Your task to perform on an android device: turn off smart reply in the gmail app Image 0: 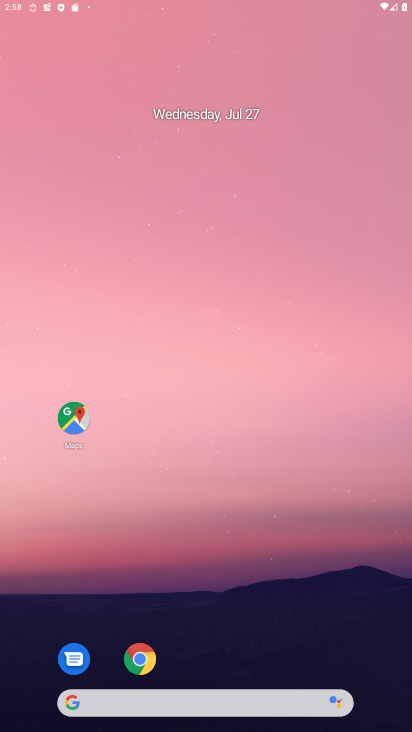
Step 0: click (141, 659)
Your task to perform on an android device: turn off smart reply in the gmail app Image 1: 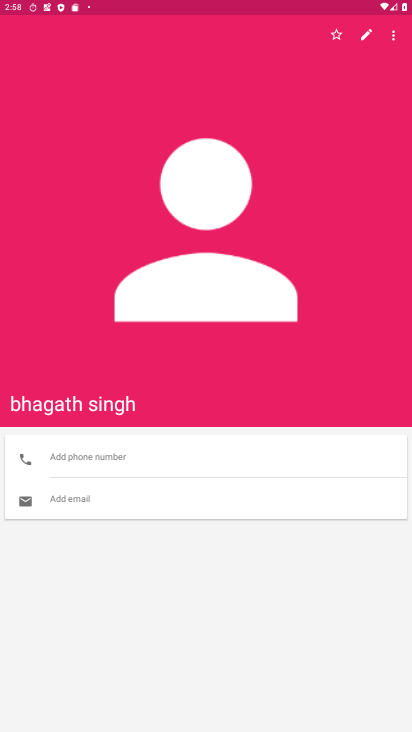
Step 1: press home button
Your task to perform on an android device: turn off smart reply in the gmail app Image 2: 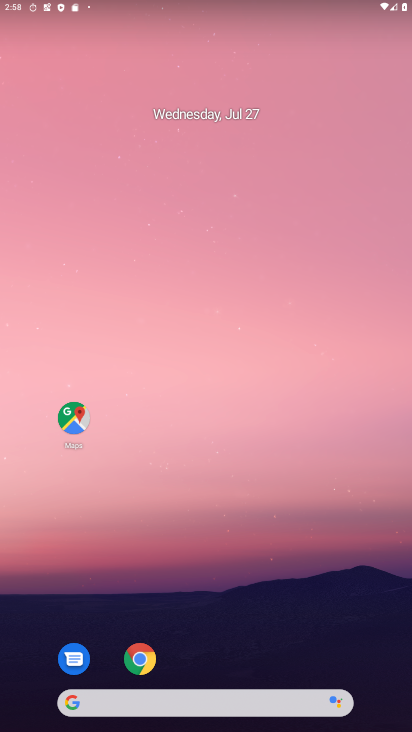
Step 2: drag from (215, 698) to (169, 61)
Your task to perform on an android device: turn off smart reply in the gmail app Image 3: 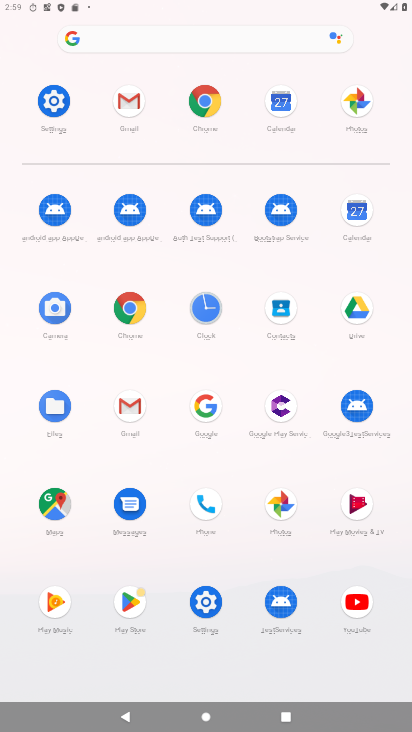
Step 3: click (126, 414)
Your task to perform on an android device: turn off smart reply in the gmail app Image 4: 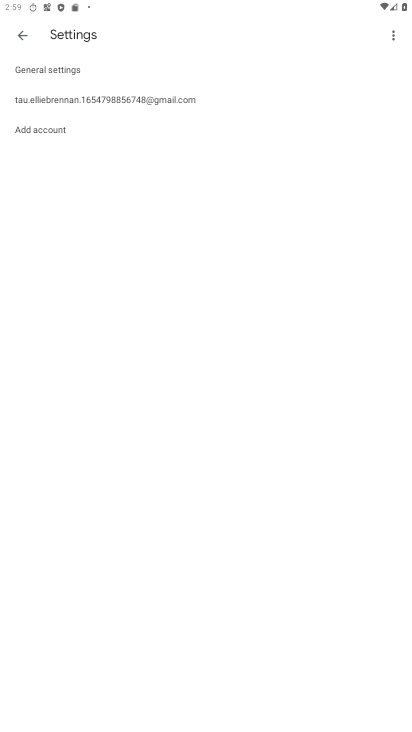
Step 4: click (77, 97)
Your task to perform on an android device: turn off smart reply in the gmail app Image 5: 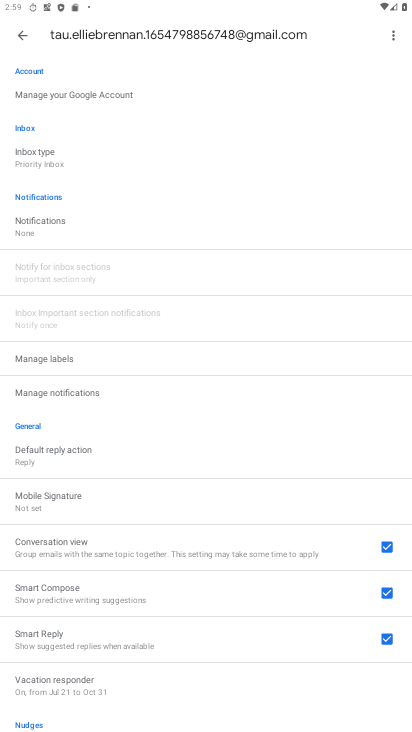
Step 5: click (384, 639)
Your task to perform on an android device: turn off smart reply in the gmail app Image 6: 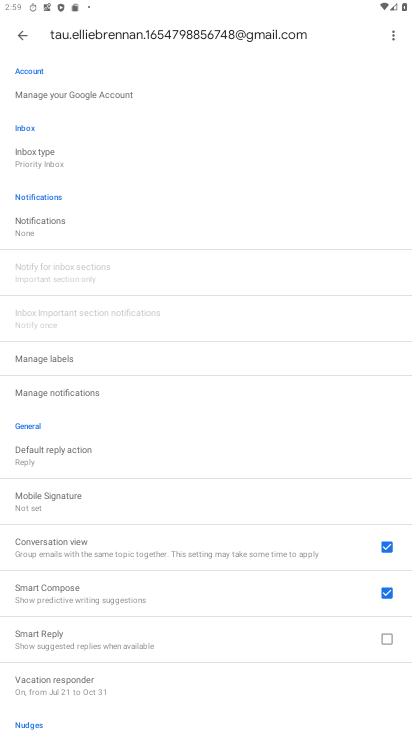
Step 6: task complete